Your task to perform on an android device: Go to eBay Image 0: 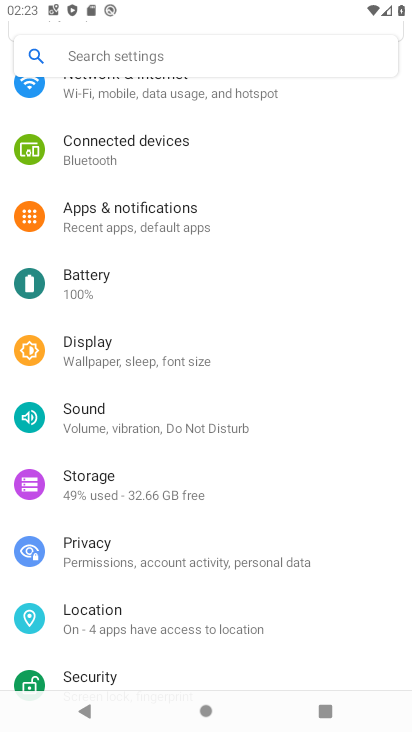
Step 0: press home button
Your task to perform on an android device: Go to eBay Image 1: 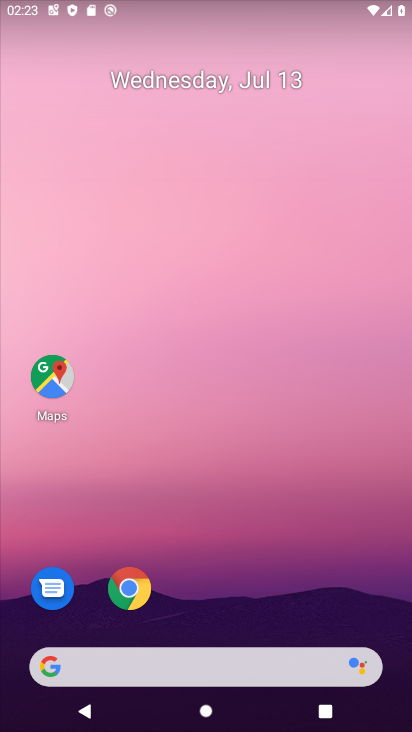
Step 1: click (136, 592)
Your task to perform on an android device: Go to eBay Image 2: 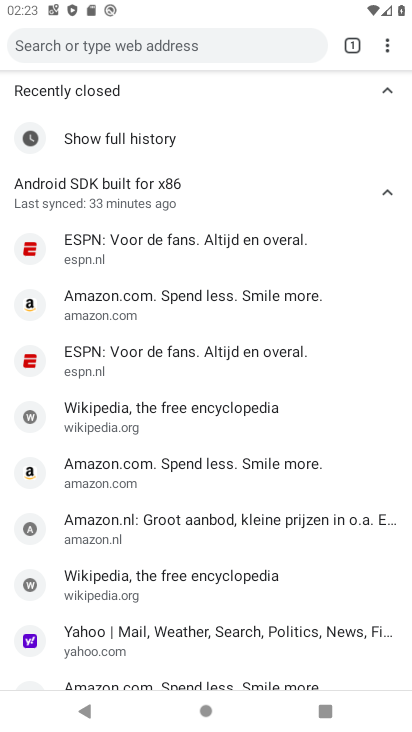
Step 2: click (171, 50)
Your task to perform on an android device: Go to eBay Image 3: 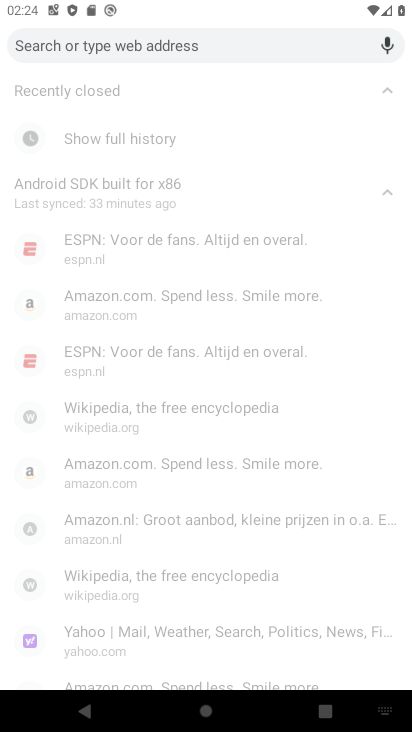
Step 3: type "eBay"
Your task to perform on an android device: Go to eBay Image 4: 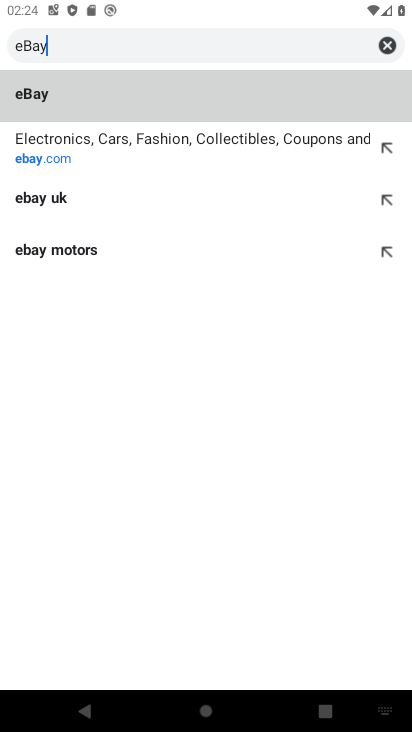
Step 4: click (83, 80)
Your task to perform on an android device: Go to eBay Image 5: 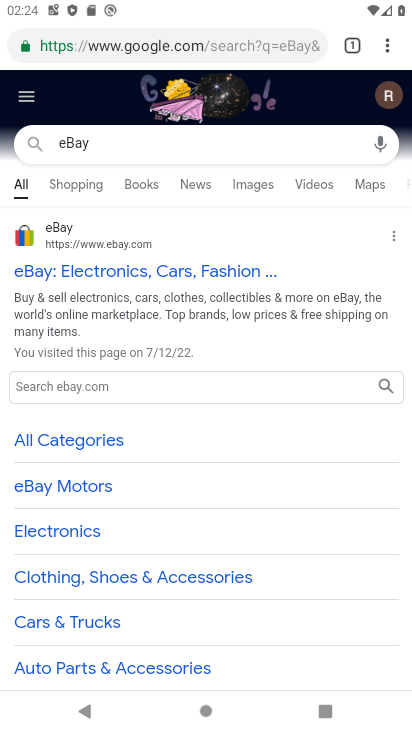
Step 5: task complete